Your task to perform on an android device: set an alarm Image 0: 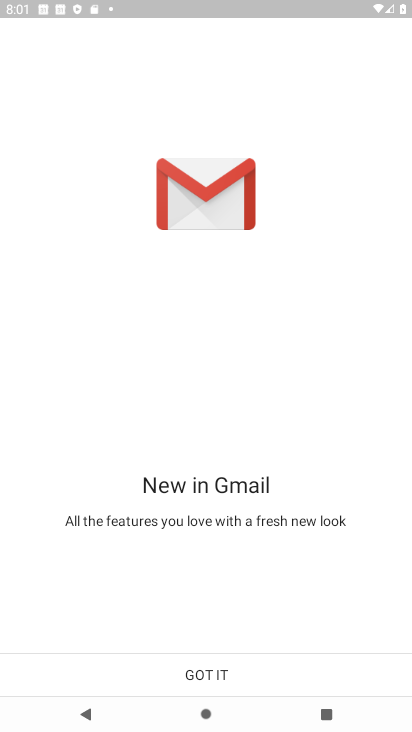
Step 0: press home button
Your task to perform on an android device: set an alarm Image 1: 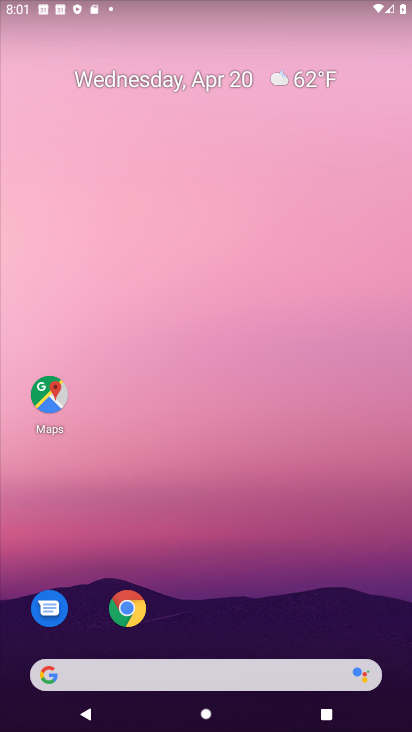
Step 1: drag from (265, 616) to (272, 117)
Your task to perform on an android device: set an alarm Image 2: 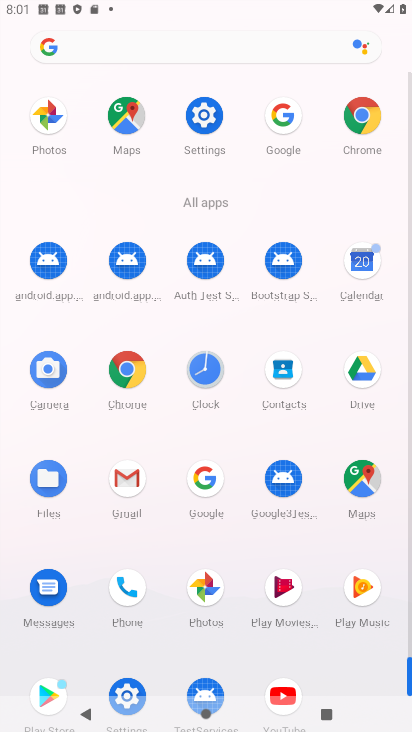
Step 2: click (204, 369)
Your task to perform on an android device: set an alarm Image 3: 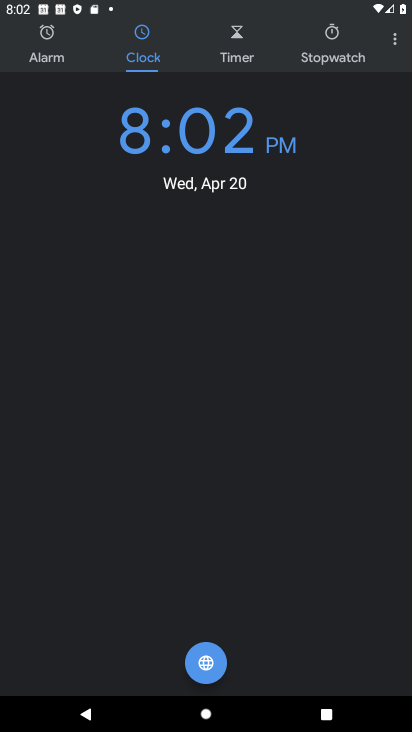
Step 3: click (59, 50)
Your task to perform on an android device: set an alarm Image 4: 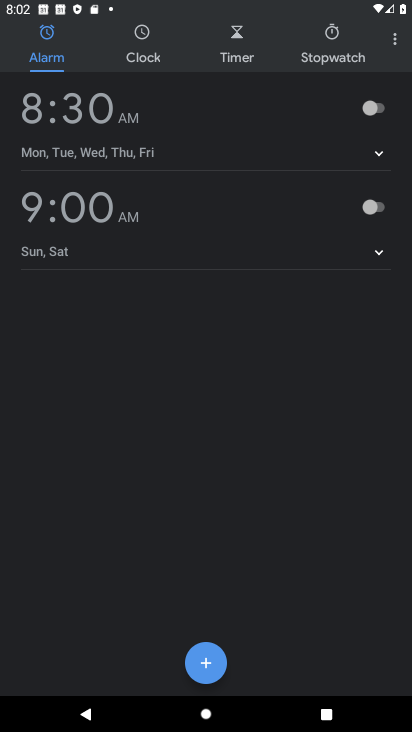
Step 4: click (214, 662)
Your task to perform on an android device: set an alarm Image 5: 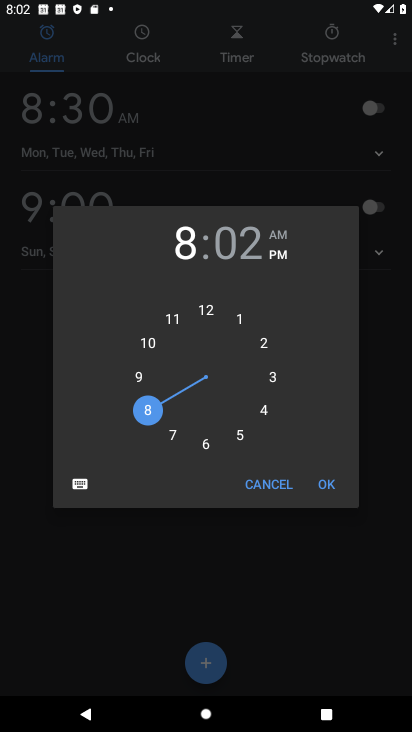
Step 5: click (335, 488)
Your task to perform on an android device: set an alarm Image 6: 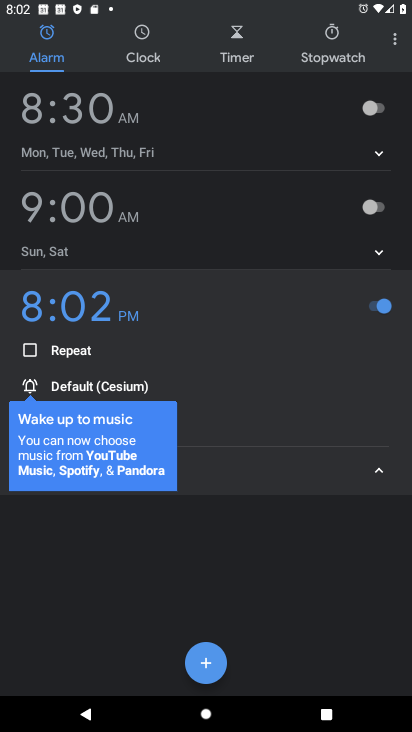
Step 6: task complete